Your task to perform on an android device: turn vacation reply on in the gmail app Image 0: 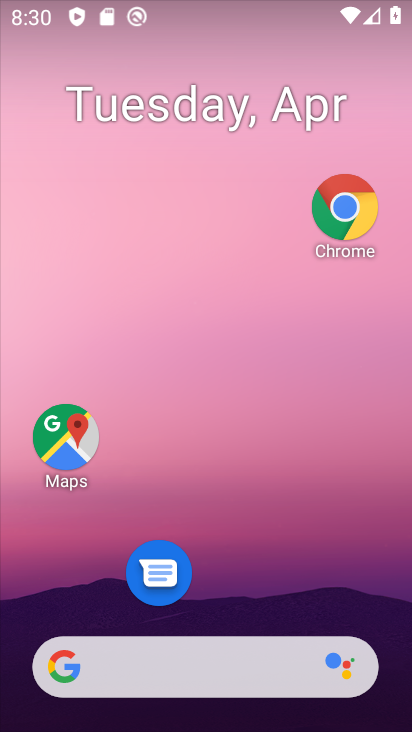
Step 0: drag from (208, 610) to (222, 20)
Your task to perform on an android device: turn vacation reply on in the gmail app Image 1: 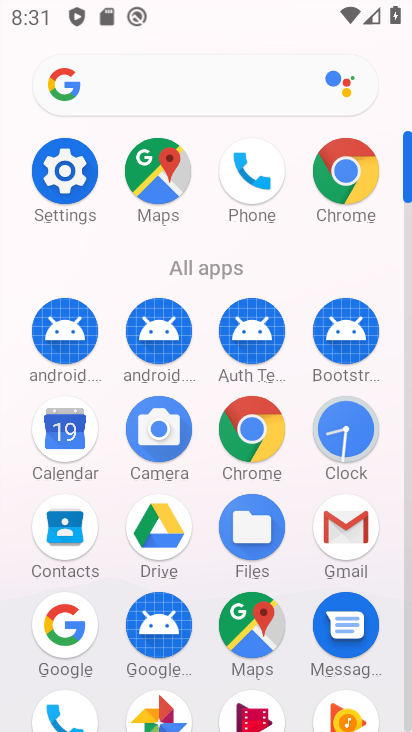
Step 1: click (328, 517)
Your task to perform on an android device: turn vacation reply on in the gmail app Image 2: 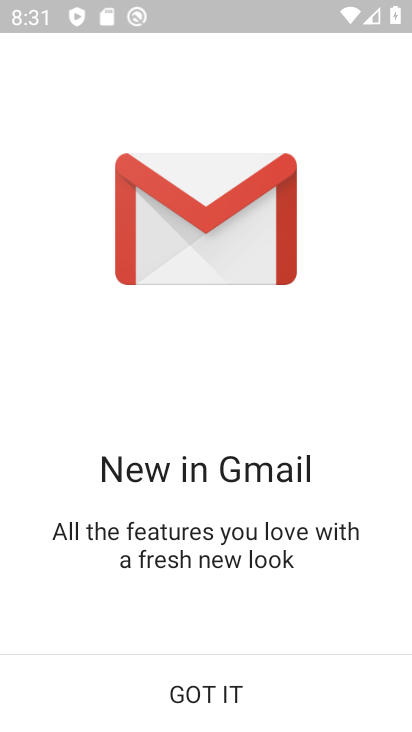
Step 2: click (260, 692)
Your task to perform on an android device: turn vacation reply on in the gmail app Image 3: 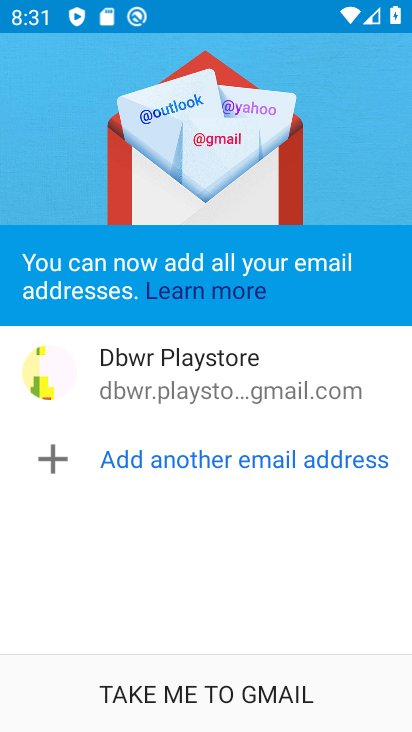
Step 3: click (246, 696)
Your task to perform on an android device: turn vacation reply on in the gmail app Image 4: 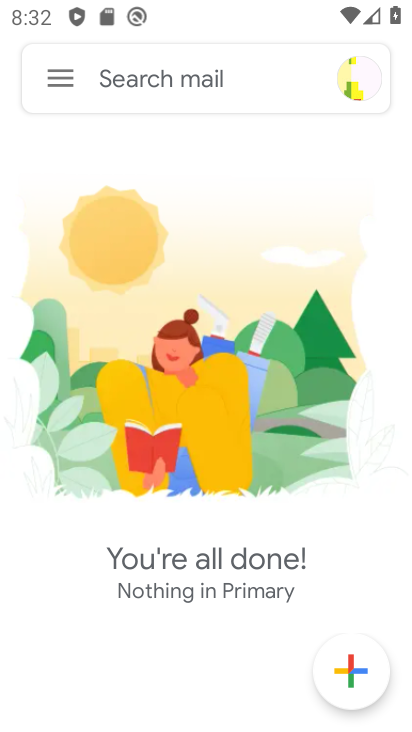
Step 4: click (42, 74)
Your task to perform on an android device: turn vacation reply on in the gmail app Image 5: 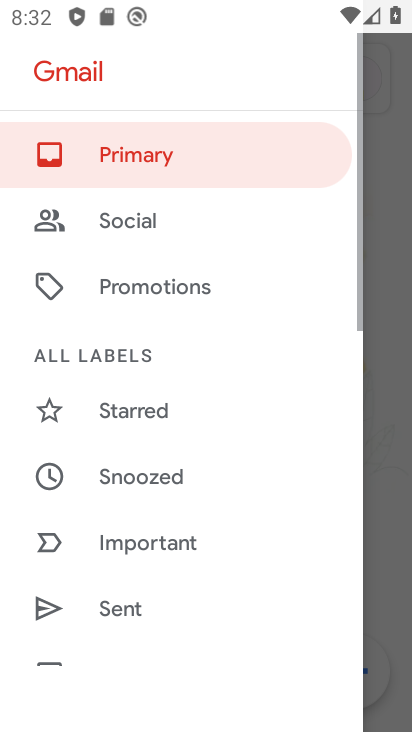
Step 5: drag from (128, 468) to (136, 42)
Your task to perform on an android device: turn vacation reply on in the gmail app Image 6: 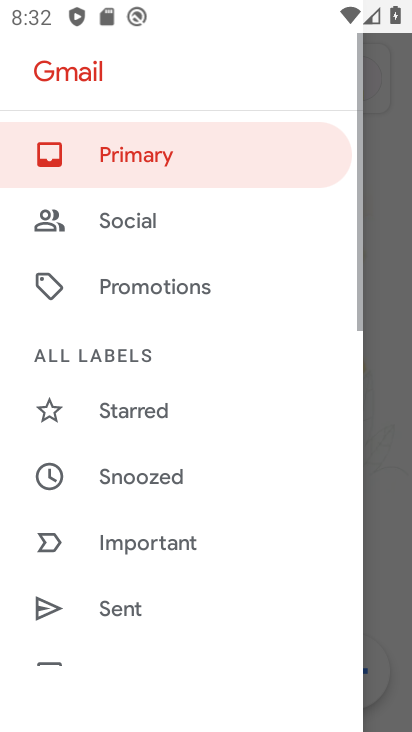
Step 6: drag from (168, 608) to (168, 37)
Your task to perform on an android device: turn vacation reply on in the gmail app Image 7: 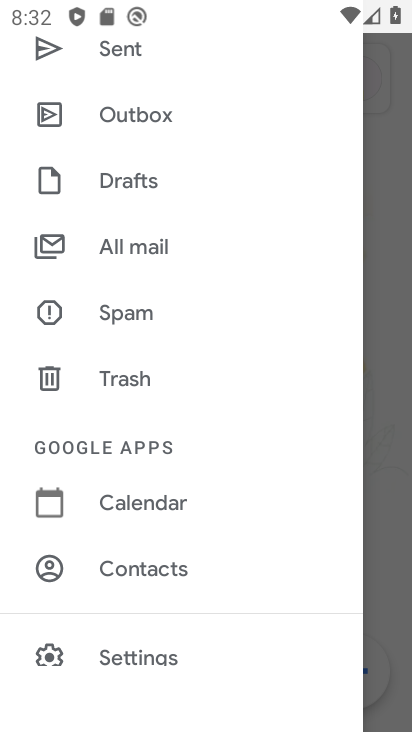
Step 7: click (182, 650)
Your task to perform on an android device: turn vacation reply on in the gmail app Image 8: 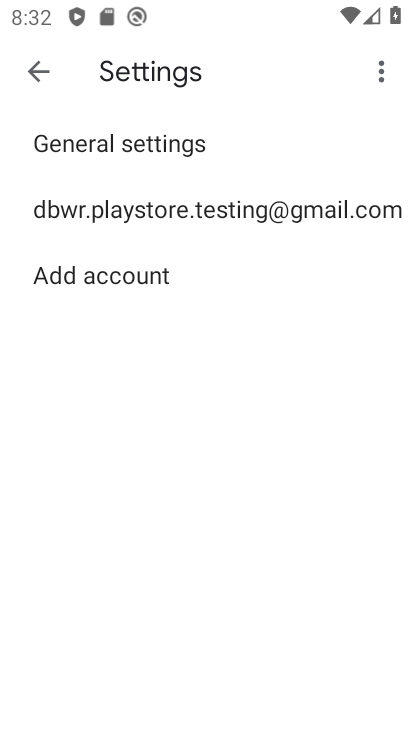
Step 8: click (135, 190)
Your task to perform on an android device: turn vacation reply on in the gmail app Image 9: 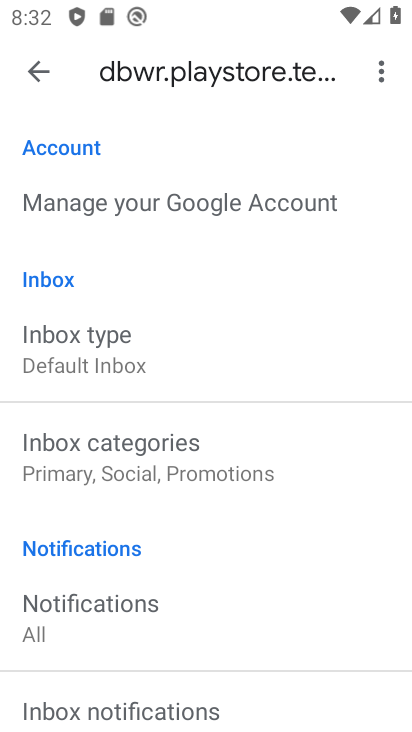
Step 9: drag from (152, 674) to (13, 674)
Your task to perform on an android device: turn vacation reply on in the gmail app Image 10: 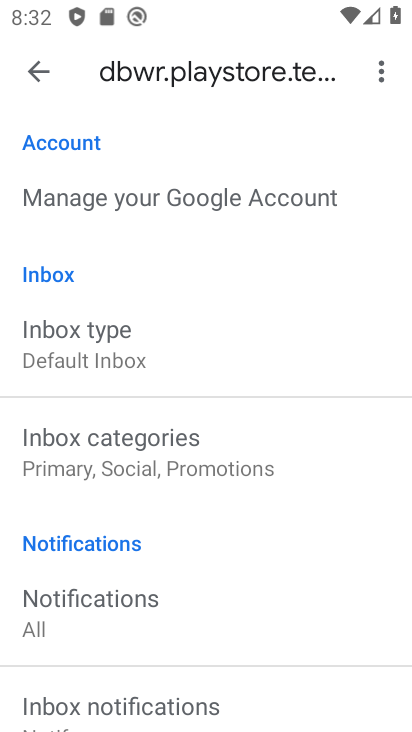
Step 10: drag from (195, 649) to (163, 23)
Your task to perform on an android device: turn vacation reply on in the gmail app Image 11: 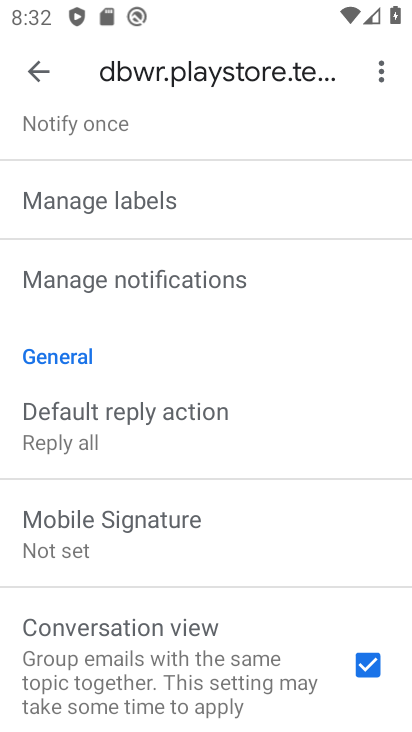
Step 11: drag from (209, 639) to (125, 119)
Your task to perform on an android device: turn vacation reply on in the gmail app Image 12: 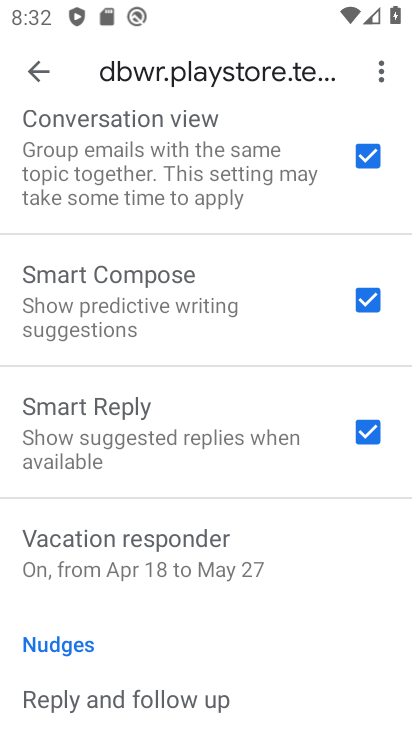
Step 12: click (95, 526)
Your task to perform on an android device: turn vacation reply on in the gmail app Image 13: 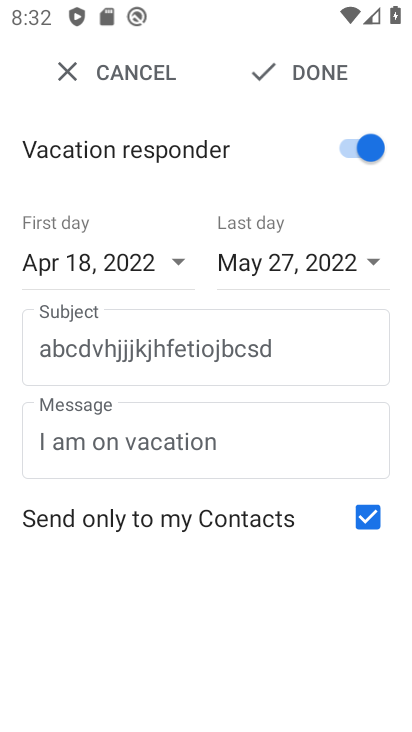
Step 13: click (294, 79)
Your task to perform on an android device: turn vacation reply on in the gmail app Image 14: 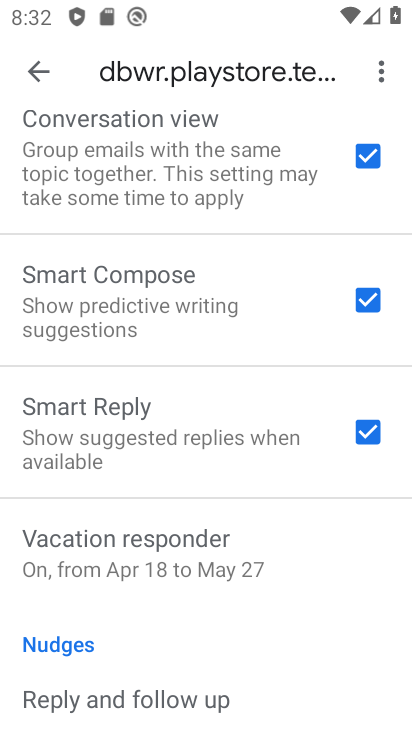
Step 14: task complete